Your task to perform on an android device: change notifications settings Image 0: 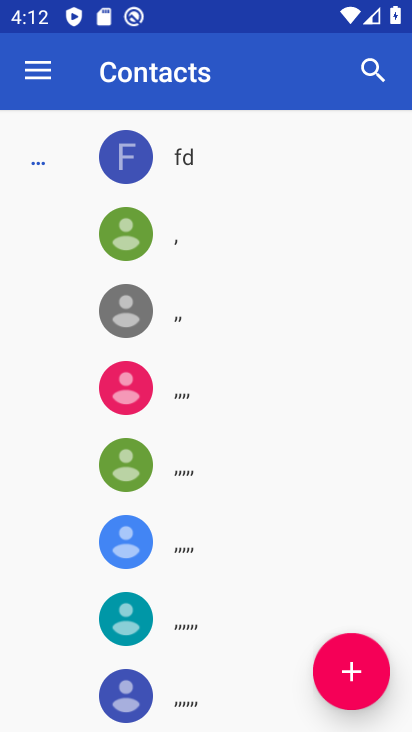
Step 0: press home button
Your task to perform on an android device: change notifications settings Image 1: 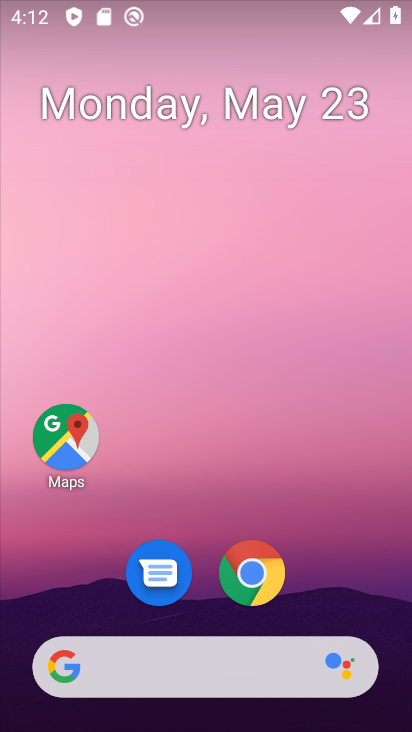
Step 1: drag from (196, 721) to (219, 4)
Your task to perform on an android device: change notifications settings Image 2: 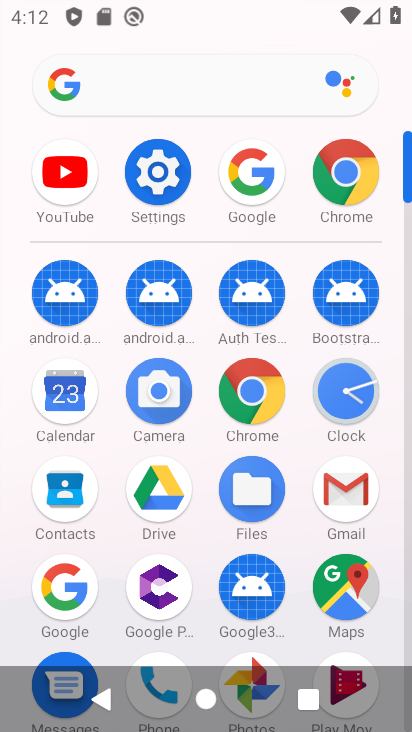
Step 2: click (162, 174)
Your task to perform on an android device: change notifications settings Image 3: 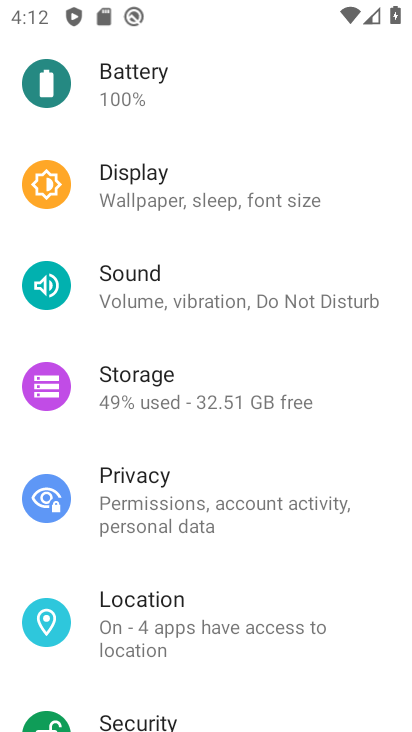
Step 3: drag from (189, 156) to (207, 501)
Your task to perform on an android device: change notifications settings Image 4: 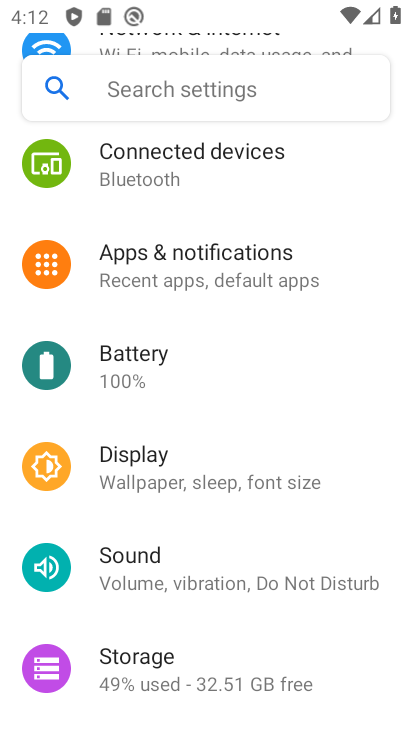
Step 4: click (200, 268)
Your task to perform on an android device: change notifications settings Image 5: 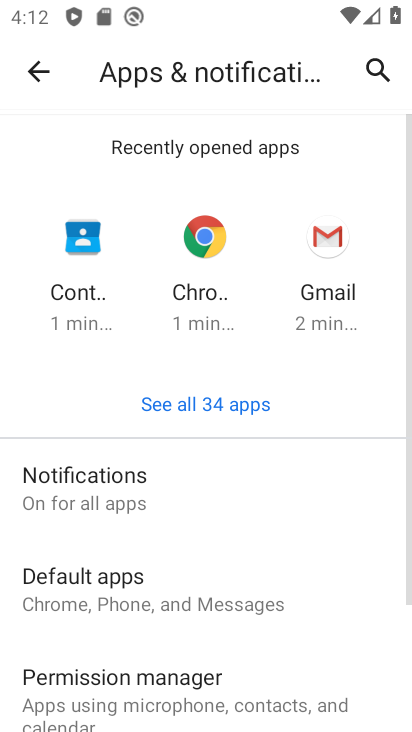
Step 5: click (92, 509)
Your task to perform on an android device: change notifications settings Image 6: 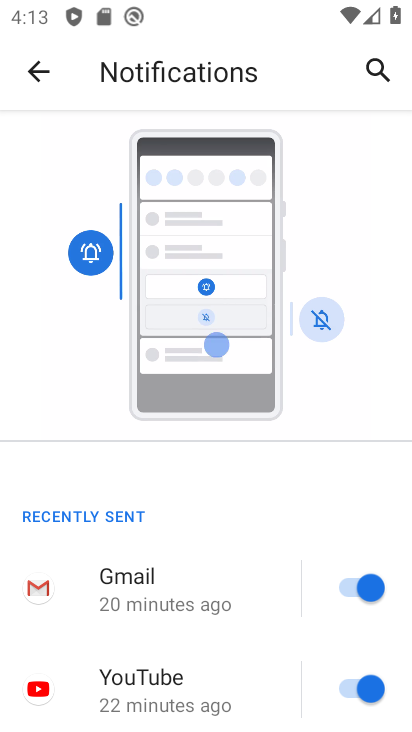
Step 6: drag from (241, 665) to (214, 180)
Your task to perform on an android device: change notifications settings Image 7: 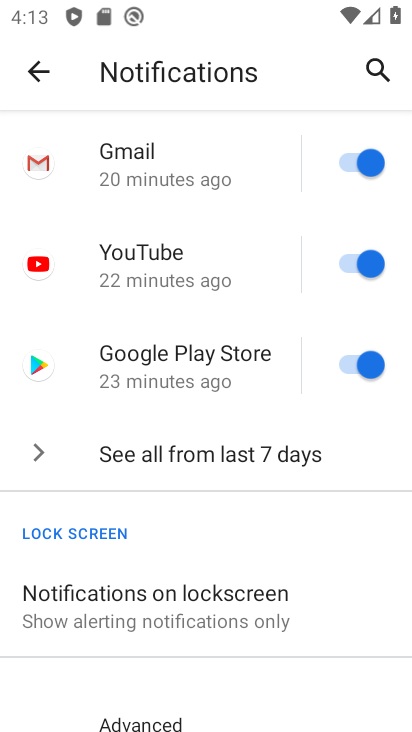
Step 7: drag from (233, 665) to (243, 270)
Your task to perform on an android device: change notifications settings Image 8: 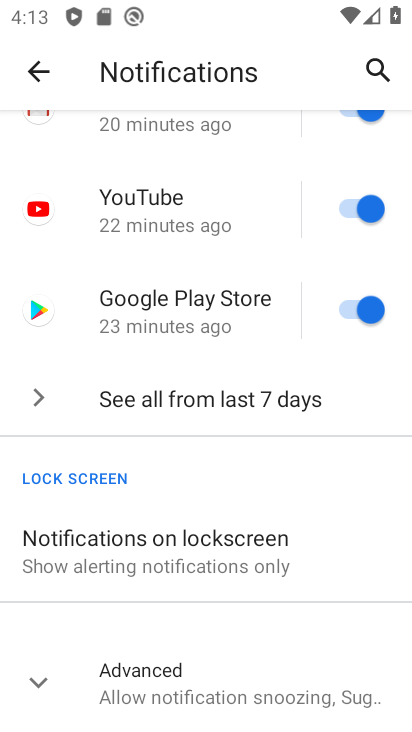
Step 8: click (184, 683)
Your task to perform on an android device: change notifications settings Image 9: 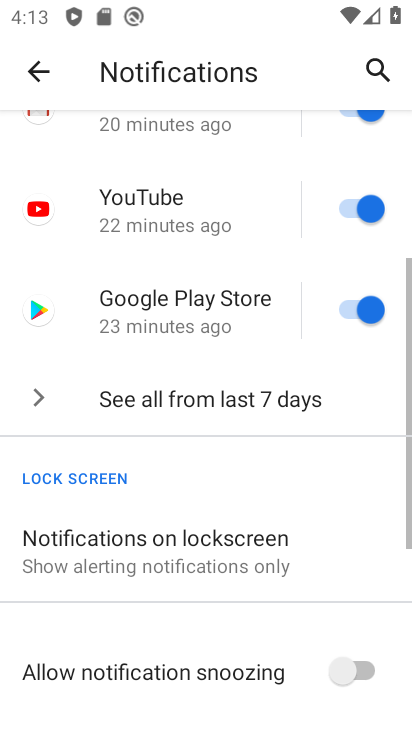
Step 9: click (357, 669)
Your task to perform on an android device: change notifications settings Image 10: 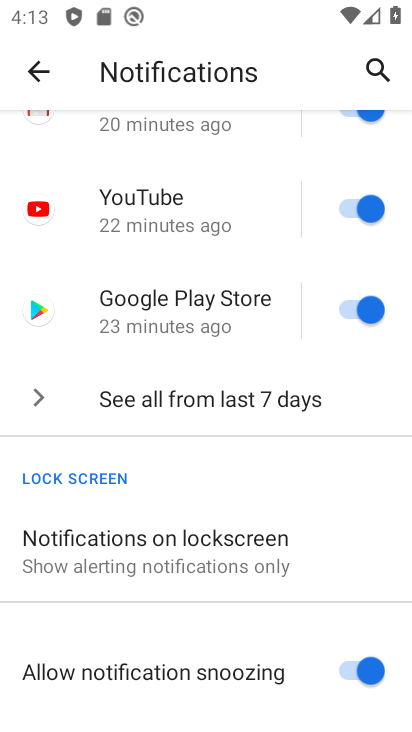
Step 10: task complete